Your task to perform on an android device: toggle airplane mode Image 0: 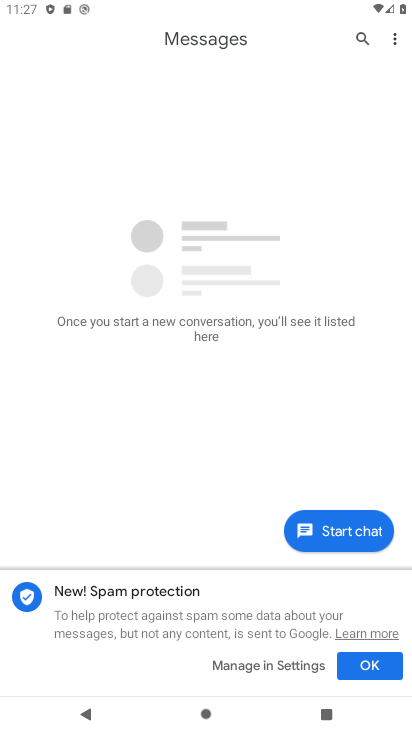
Step 0: press home button
Your task to perform on an android device: toggle airplane mode Image 1: 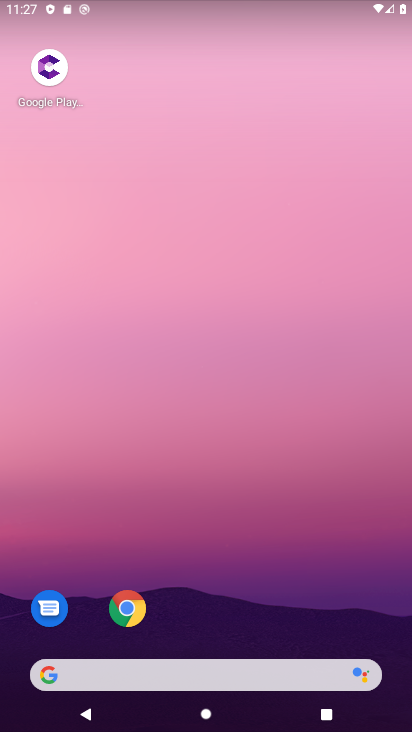
Step 1: drag from (190, 597) to (316, 120)
Your task to perform on an android device: toggle airplane mode Image 2: 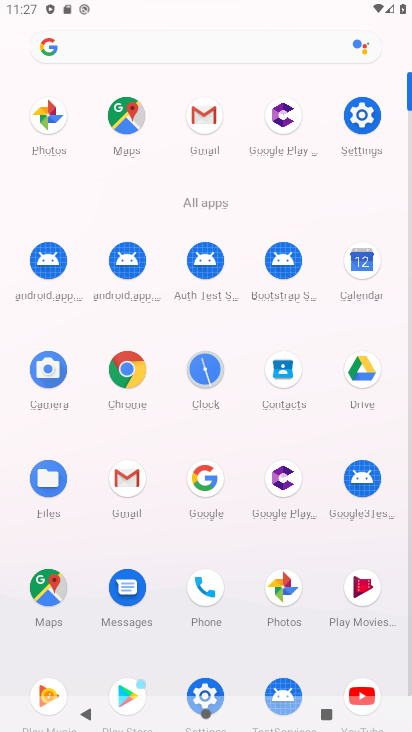
Step 2: click (361, 130)
Your task to perform on an android device: toggle airplane mode Image 3: 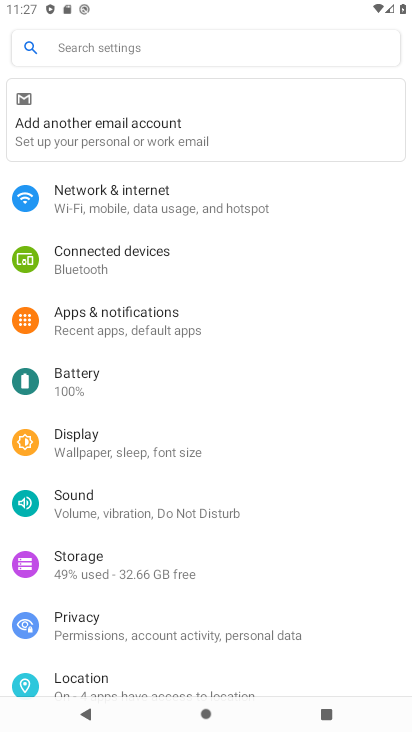
Step 3: click (146, 190)
Your task to perform on an android device: toggle airplane mode Image 4: 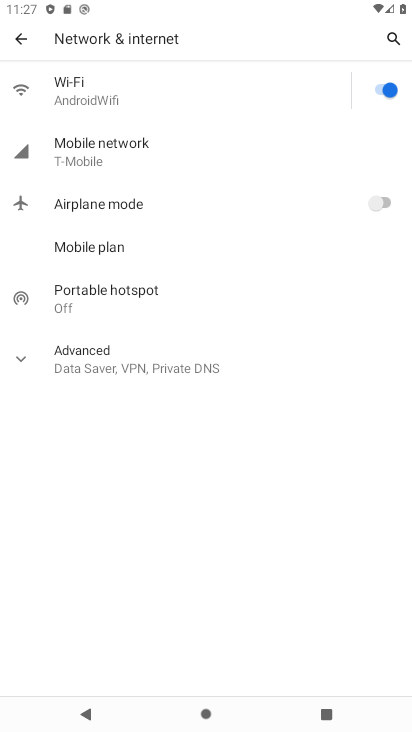
Step 4: click (121, 194)
Your task to perform on an android device: toggle airplane mode Image 5: 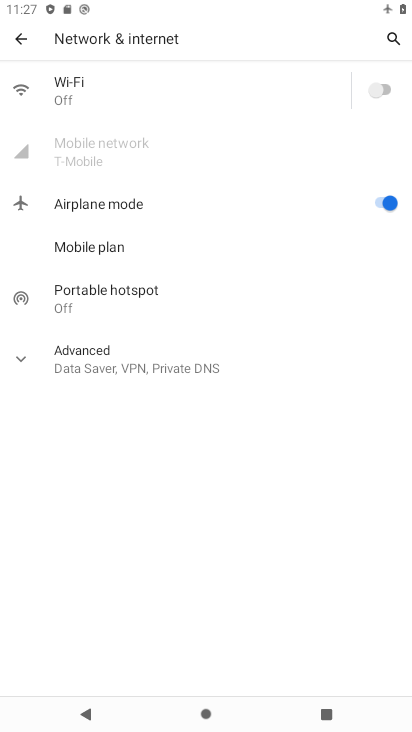
Step 5: task complete